Your task to perform on an android device: change text size in settings app Image 0: 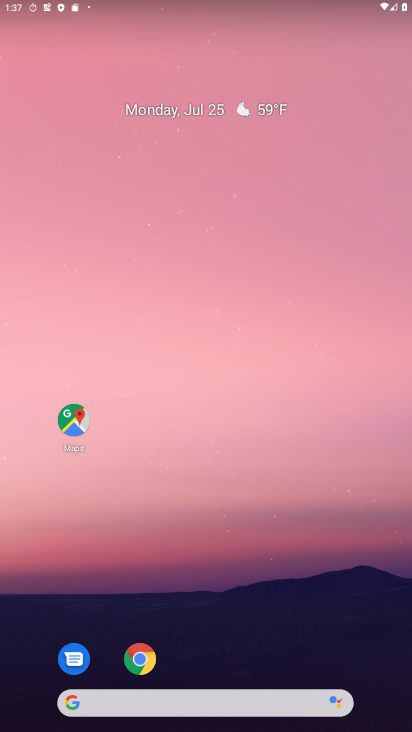
Step 0: drag from (269, 643) to (207, 0)
Your task to perform on an android device: change text size in settings app Image 1: 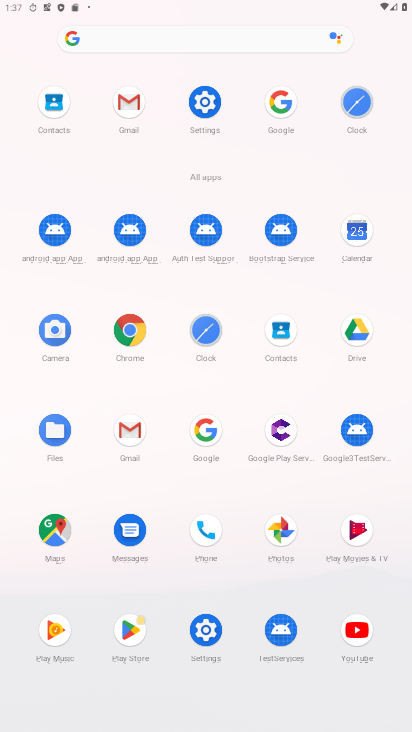
Step 1: click (206, 104)
Your task to perform on an android device: change text size in settings app Image 2: 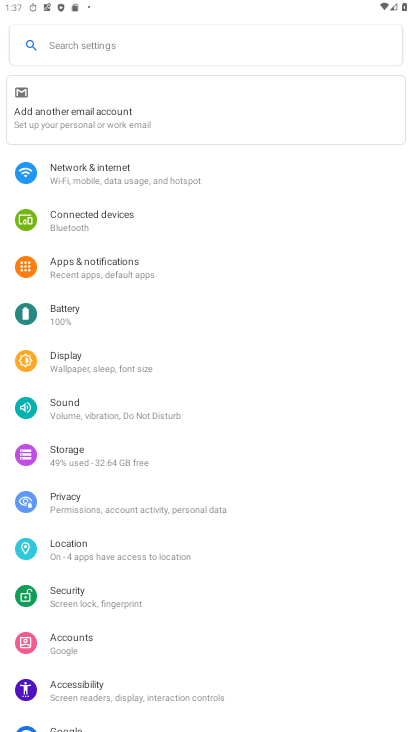
Step 2: click (101, 684)
Your task to perform on an android device: change text size in settings app Image 3: 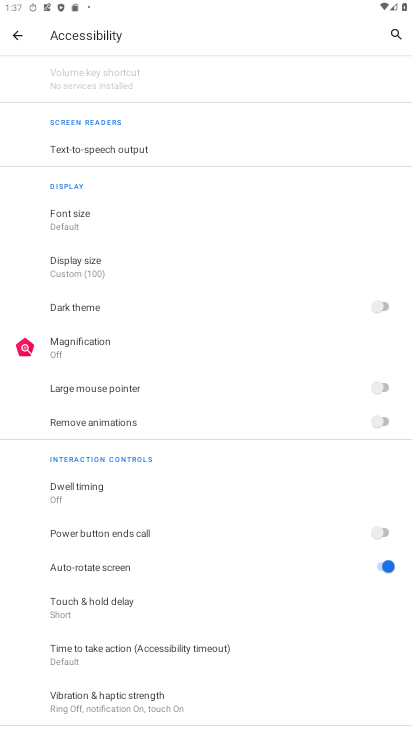
Step 3: click (58, 214)
Your task to perform on an android device: change text size in settings app Image 4: 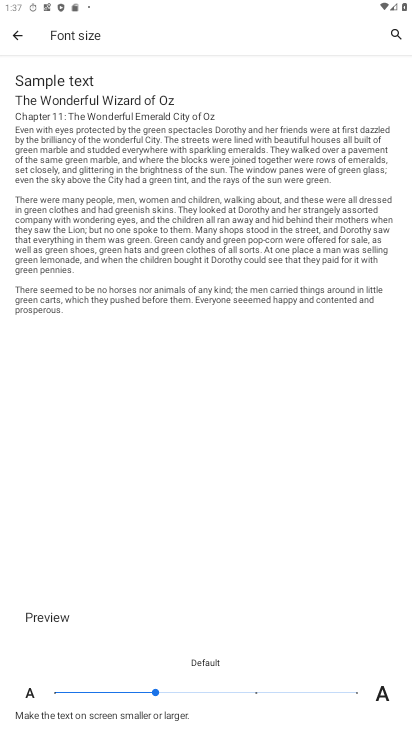
Step 4: task complete